Your task to perform on an android device: What time is it in Paris? Image 0: 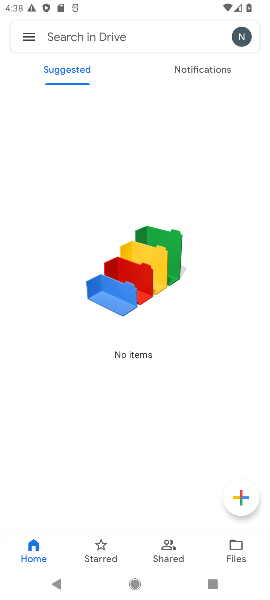
Step 0: click (130, 587)
Your task to perform on an android device: What time is it in Paris? Image 1: 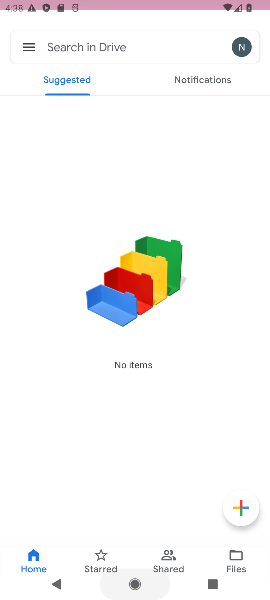
Step 1: click (130, 587)
Your task to perform on an android device: What time is it in Paris? Image 2: 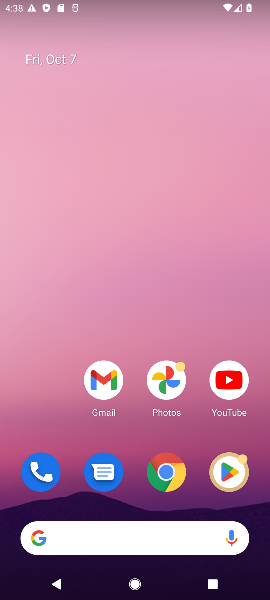
Step 2: click (162, 466)
Your task to perform on an android device: What time is it in Paris? Image 3: 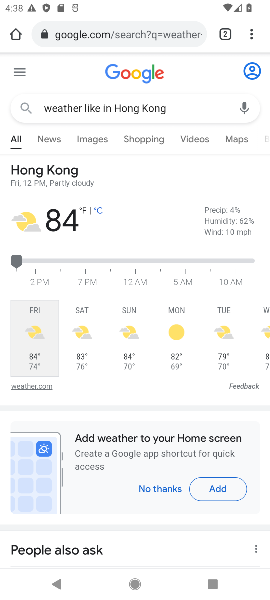
Step 3: click (165, 30)
Your task to perform on an android device: What time is it in Paris? Image 4: 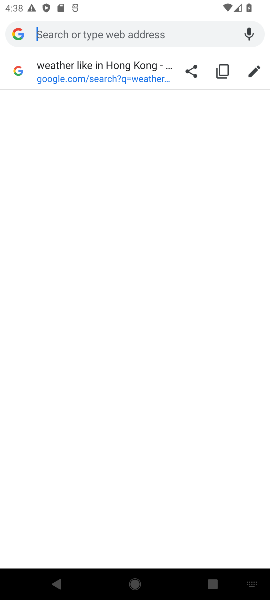
Step 4: type "time in paris"
Your task to perform on an android device: What time is it in Paris? Image 5: 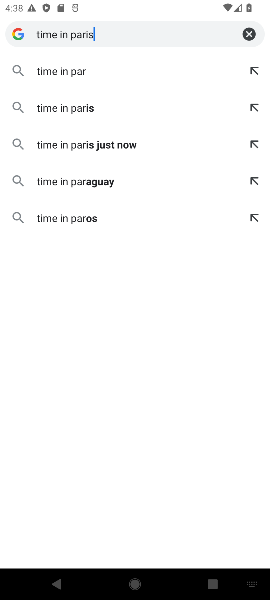
Step 5: type ""
Your task to perform on an android device: What time is it in Paris? Image 6: 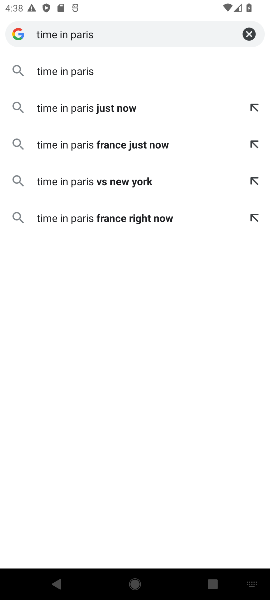
Step 6: click (107, 73)
Your task to perform on an android device: What time is it in Paris? Image 7: 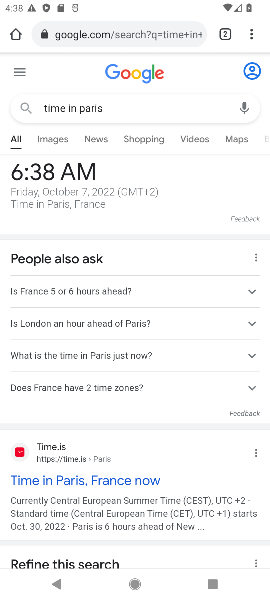
Step 7: task complete